Your task to perform on an android device: turn smart compose on in the gmail app Image 0: 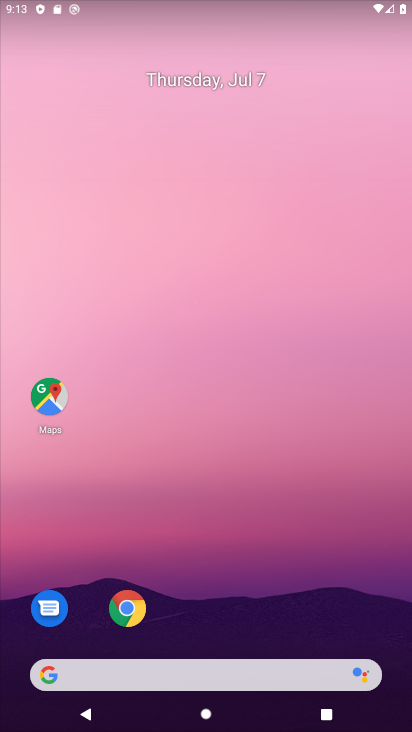
Step 0: drag from (212, 631) to (201, 159)
Your task to perform on an android device: turn smart compose on in the gmail app Image 1: 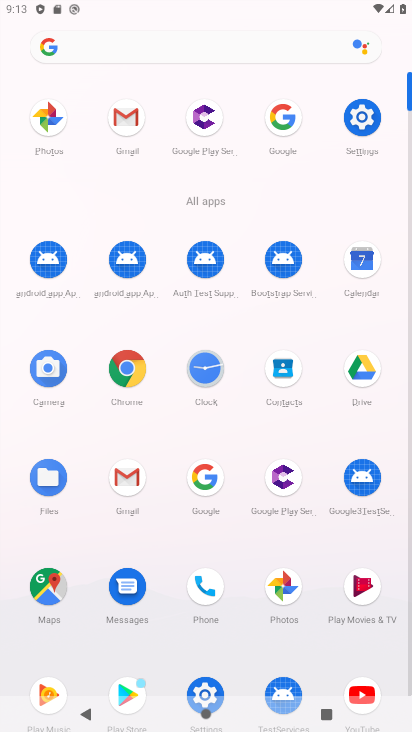
Step 1: click (124, 115)
Your task to perform on an android device: turn smart compose on in the gmail app Image 2: 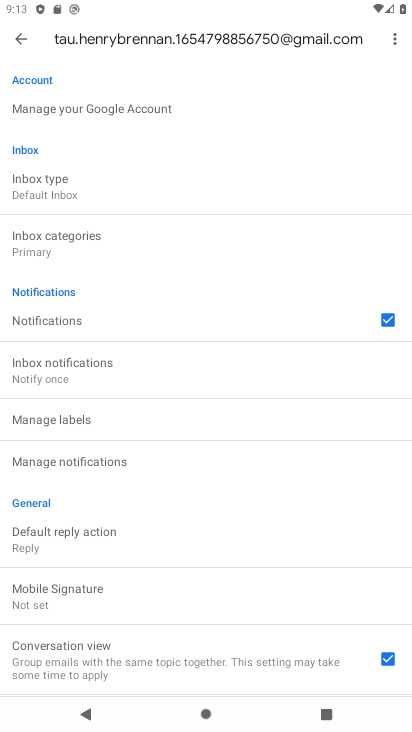
Step 2: task complete